Your task to perform on an android device: clear history in the chrome app Image 0: 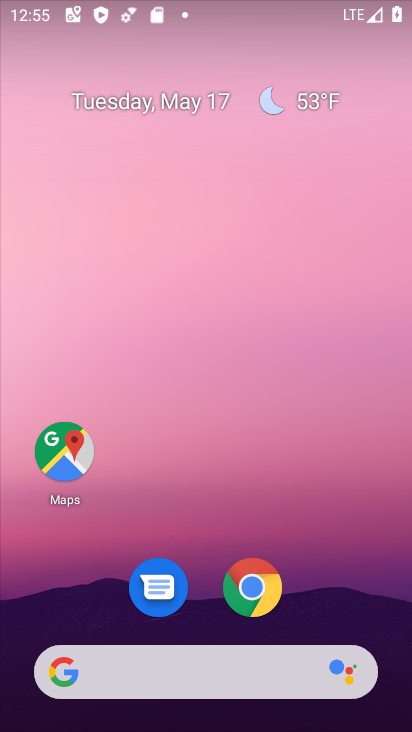
Step 0: drag from (204, 569) to (265, 6)
Your task to perform on an android device: clear history in the chrome app Image 1: 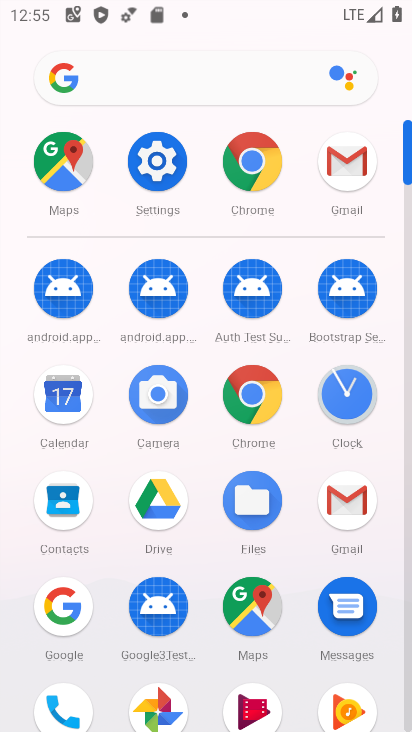
Step 1: click (260, 178)
Your task to perform on an android device: clear history in the chrome app Image 2: 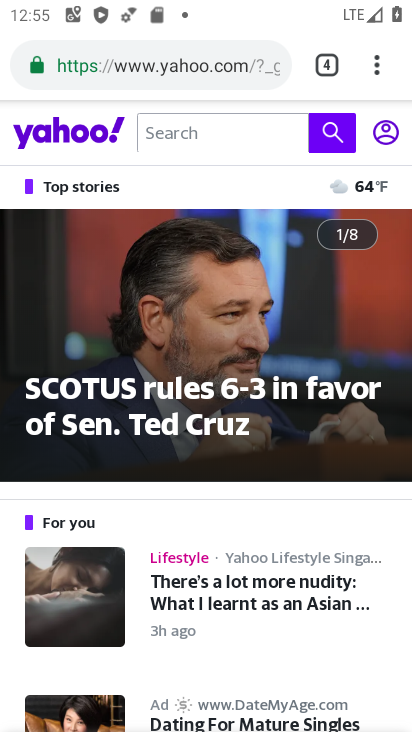
Step 2: click (379, 81)
Your task to perform on an android device: clear history in the chrome app Image 3: 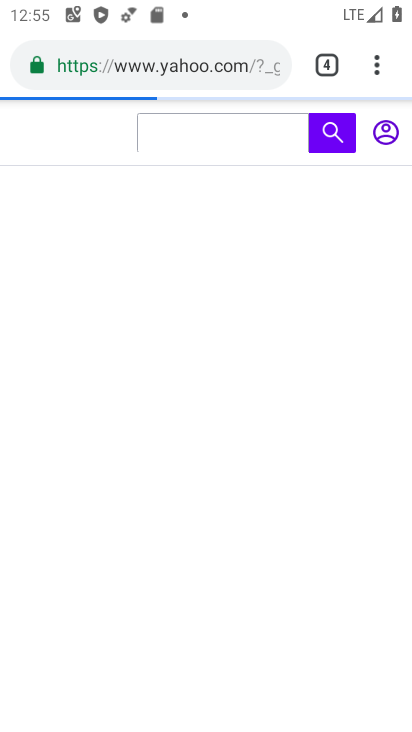
Step 3: drag from (379, 81) to (143, 360)
Your task to perform on an android device: clear history in the chrome app Image 4: 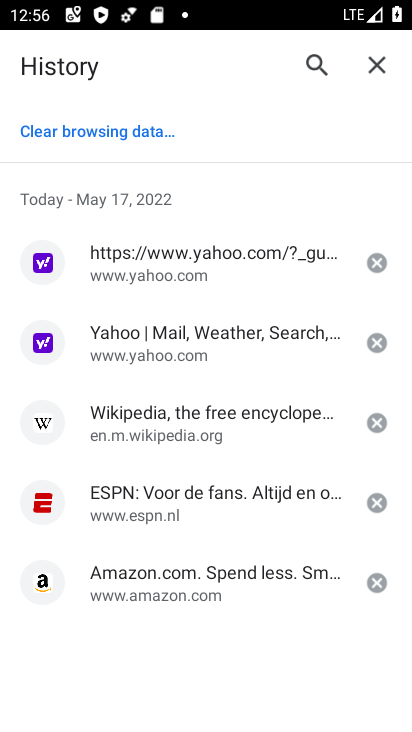
Step 4: drag from (156, 394) to (133, 262)
Your task to perform on an android device: clear history in the chrome app Image 5: 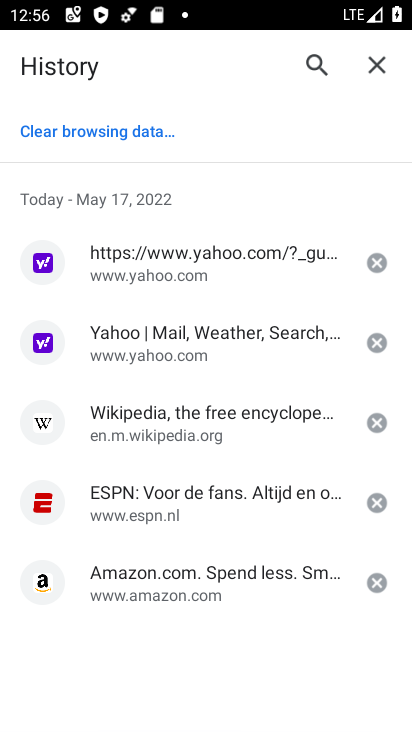
Step 5: click (64, 135)
Your task to perform on an android device: clear history in the chrome app Image 6: 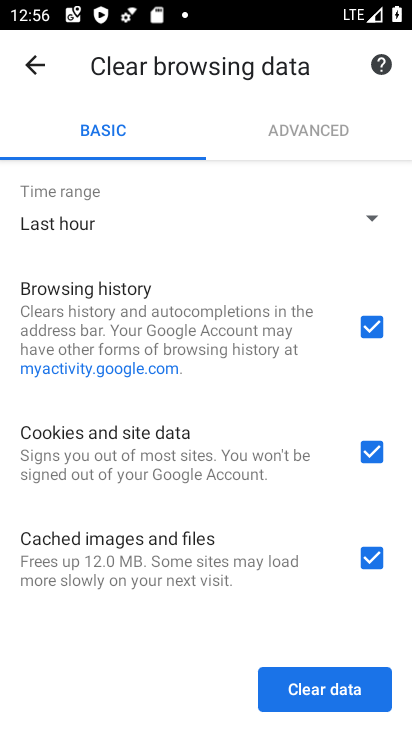
Step 6: click (344, 669)
Your task to perform on an android device: clear history in the chrome app Image 7: 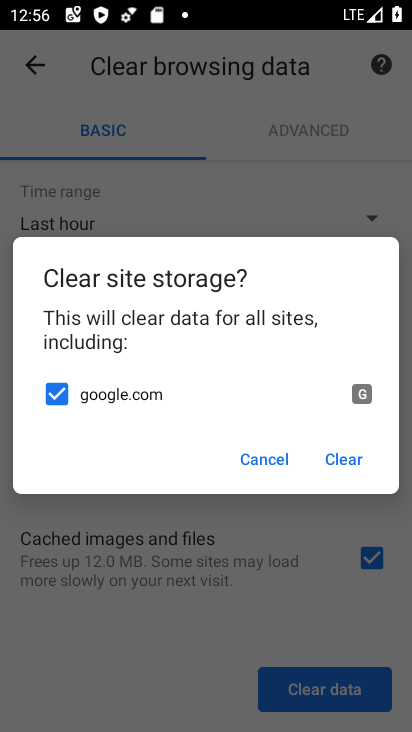
Step 7: click (335, 465)
Your task to perform on an android device: clear history in the chrome app Image 8: 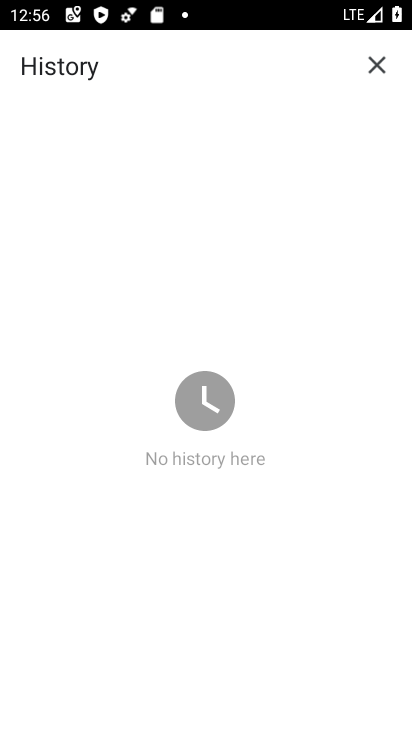
Step 8: task complete